Your task to perform on an android device: turn on the 12-hour format for clock Image 0: 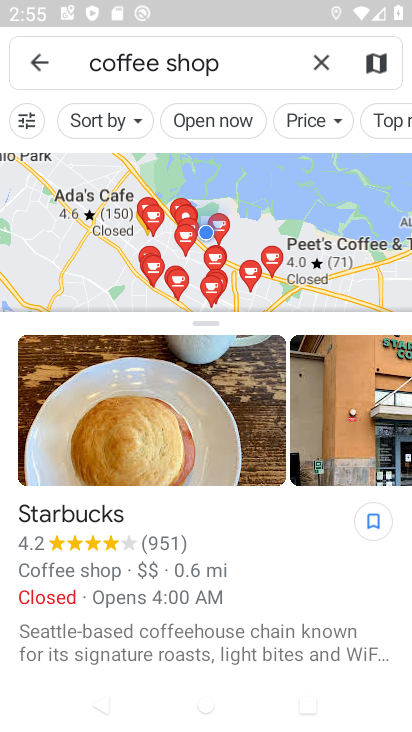
Step 0: press home button
Your task to perform on an android device: turn on the 12-hour format for clock Image 1: 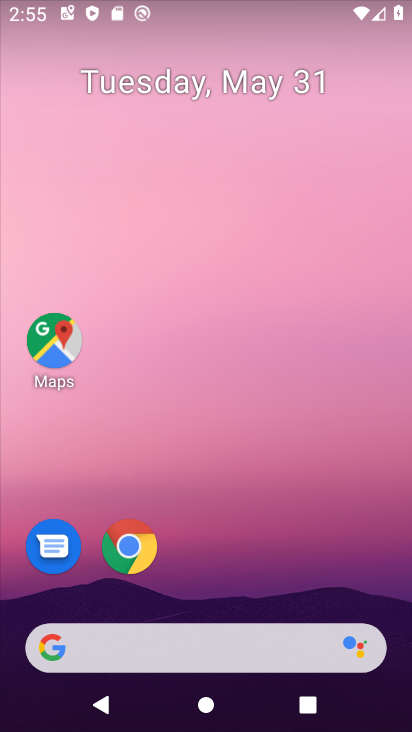
Step 1: drag from (244, 505) to (242, 29)
Your task to perform on an android device: turn on the 12-hour format for clock Image 2: 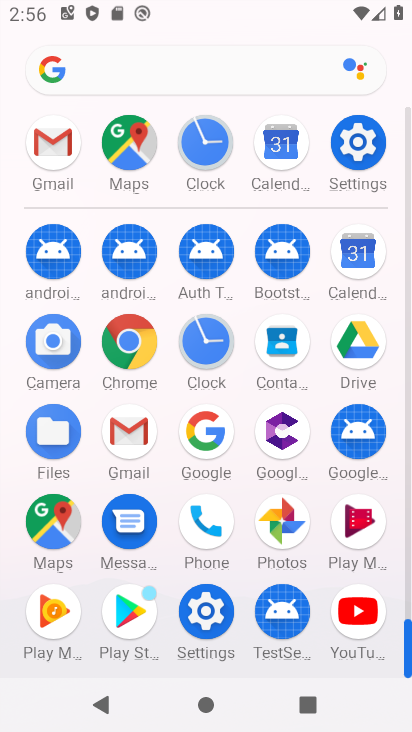
Step 2: click (203, 141)
Your task to perform on an android device: turn on the 12-hour format for clock Image 3: 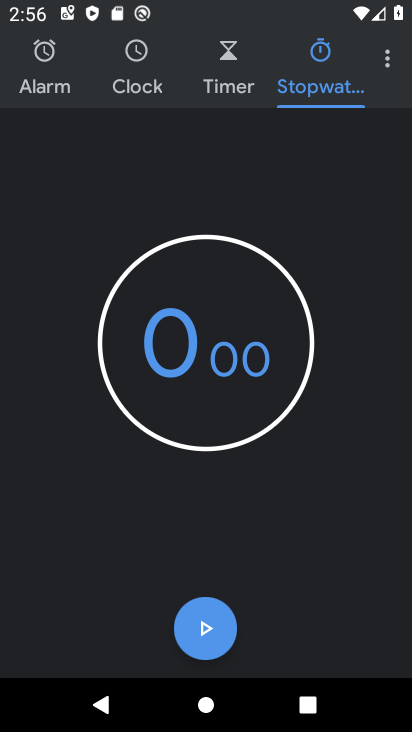
Step 3: click (378, 60)
Your task to perform on an android device: turn on the 12-hour format for clock Image 4: 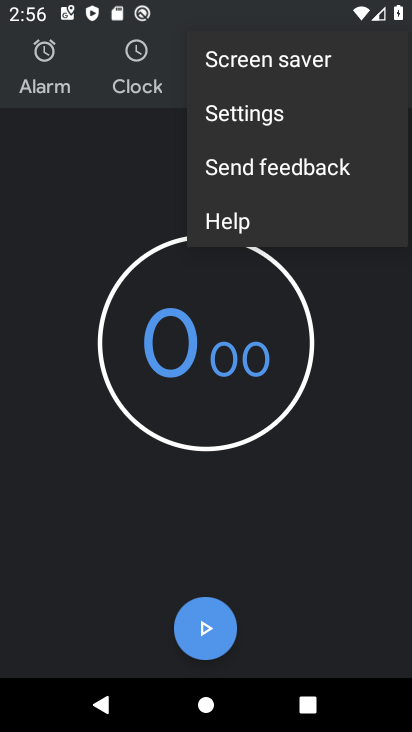
Step 4: click (328, 119)
Your task to perform on an android device: turn on the 12-hour format for clock Image 5: 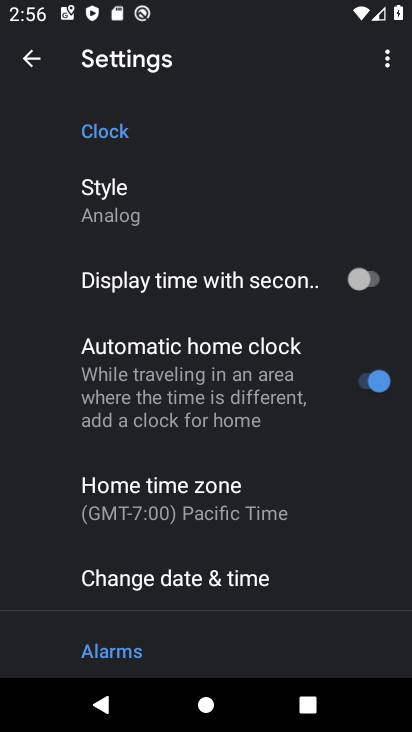
Step 5: click (309, 578)
Your task to perform on an android device: turn on the 12-hour format for clock Image 6: 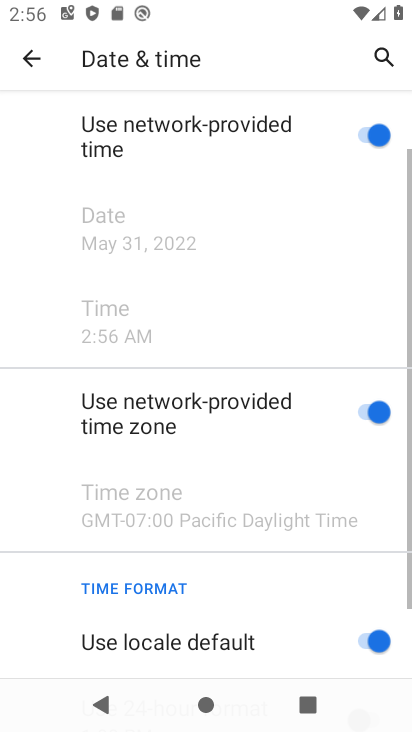
Step 6: task complete